Your task to perform on an android device: Search for pizza restaurants on Maps Image 0: 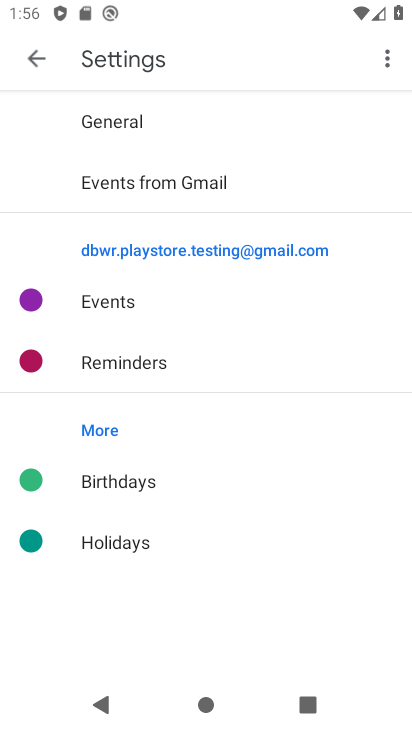
Step 0: press home button
Your task to perform on an android device: Search for pizza restaurants on Maps Image 1: 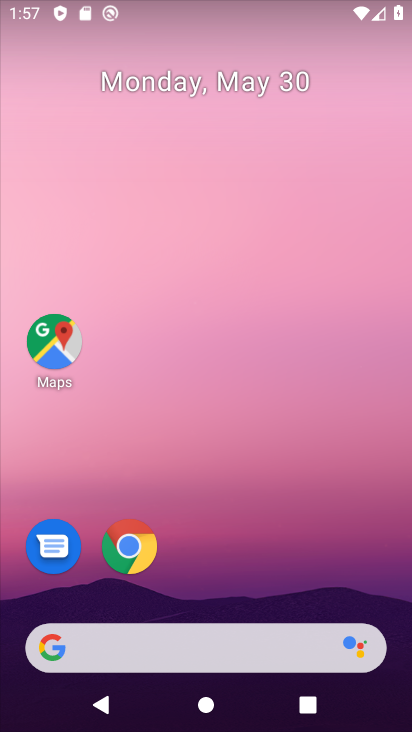
Step 1: click (55, 332)
Your task to perform on an android device: Search for pizza restaurants on Maps Image 2: 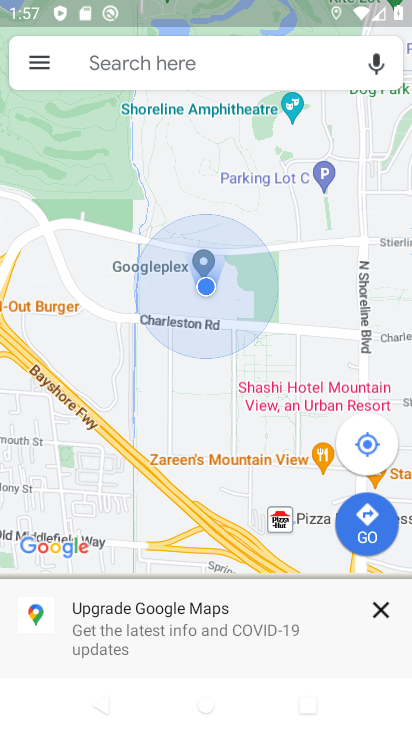
Step 2: click (140, 59)
Your task to perform on an android device: Search for pizza restaurants on Maps Image 3: 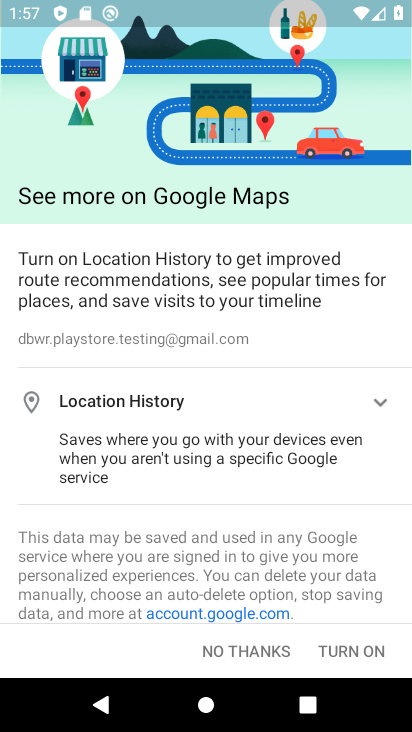
Step 3: click (349, 645)
Your task to perform on an android device: Search for pizza restaurants on Maps Image 4: 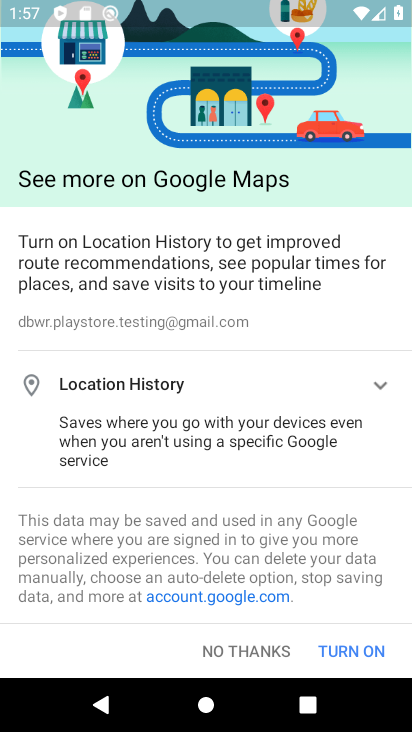
Step 4: click (350, 645)
Your task to perform on an android device: Search for pizza restaurants on Maps Image 5: 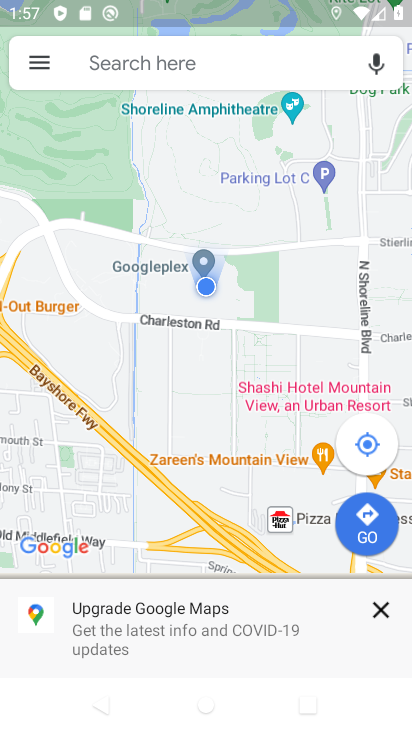
Step 5: click (145, 55)
Your task to perform on an android device: Search for pizza restaurants on Maps Image 6: 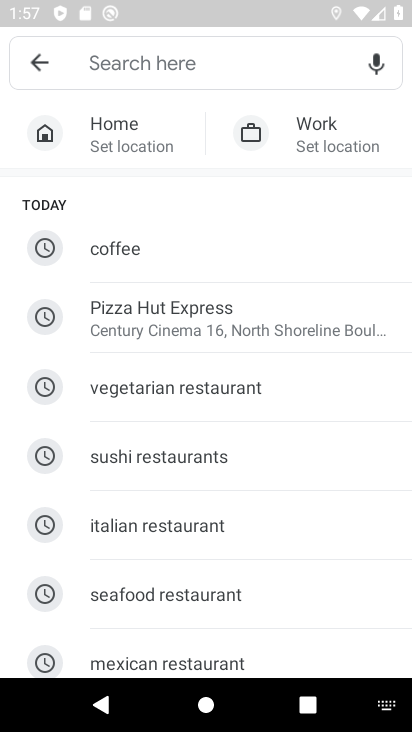
Step 6: drag from (159, 313) to (162, 156)
Your task to perform on an android device: Search for pizza restaurants on Maps Image 7: 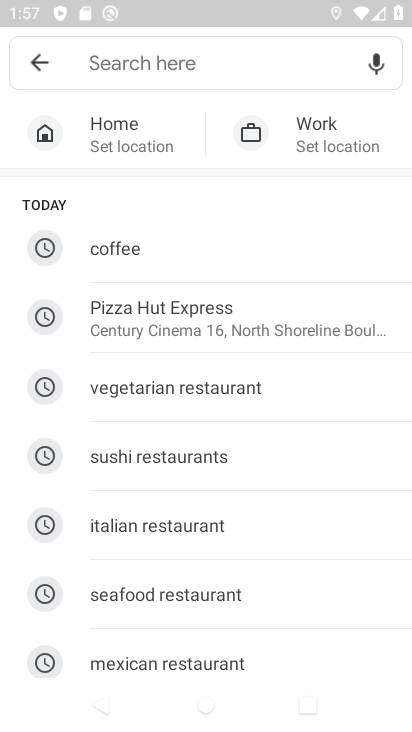
Step 7: drag from (183, 618) to (202, 293)
Your task to perform on an android device: Search for pizza restaurants on Maps Image 8: 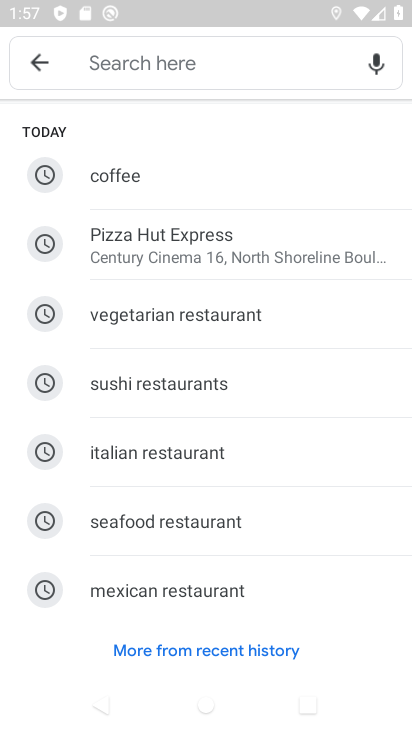
Step 8: click (141, 61)
Your task to perform on an android device: Search for pizza restaurants on Maps Image 9: 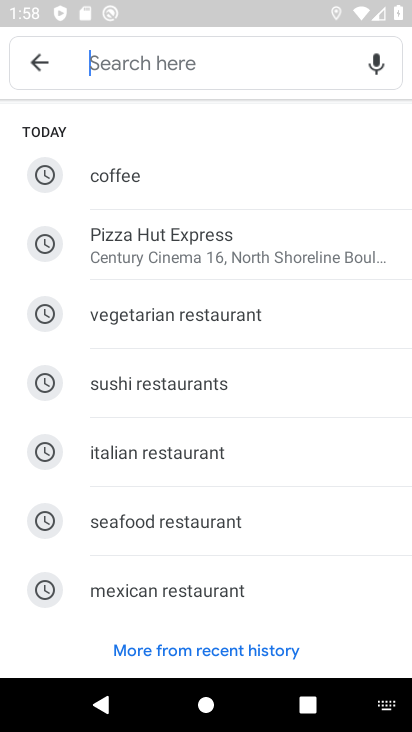
Step 9: type "pizza"
Your task to perform on an android device: Search for pizza restaurants on Maps Image 10: 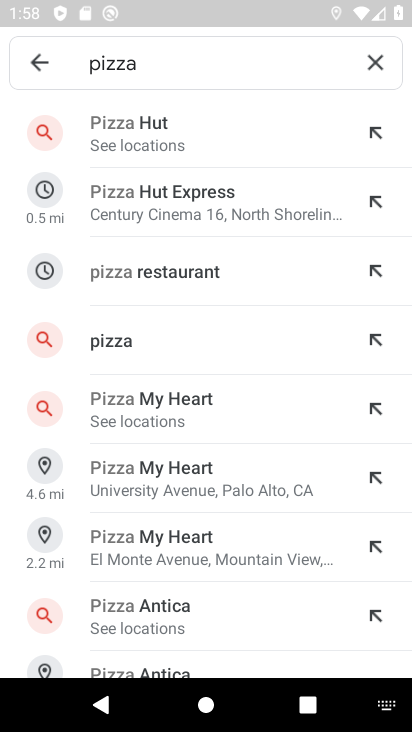
Step 10: click (147, 269)
Your task to perform on an android device: Search for pizza restaurants on Maps Image 11: 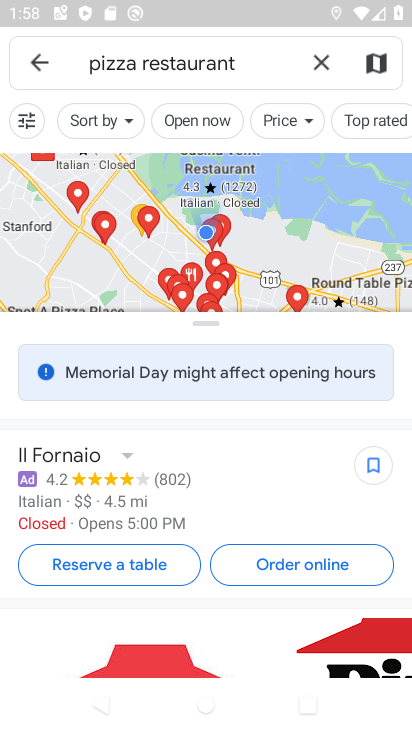
Step 11: task complete